Your task to perform on an android device: Open calendar and show me the third week of next month Image 0: 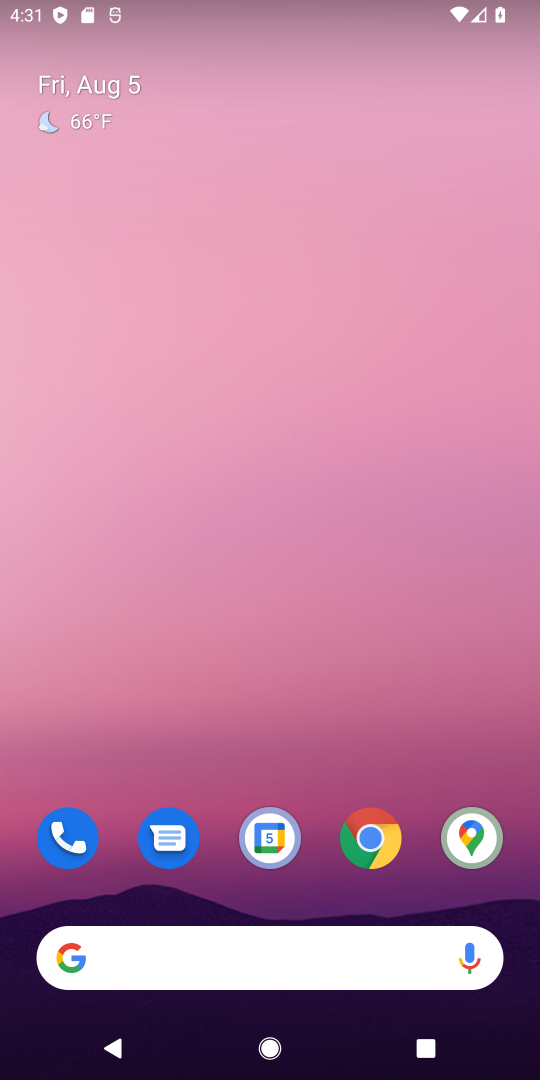
Step 0: drag from (234, 864) to (289, 298)
Your task to perform on an android device: Open calendar and show me the third week of next month Image 1: 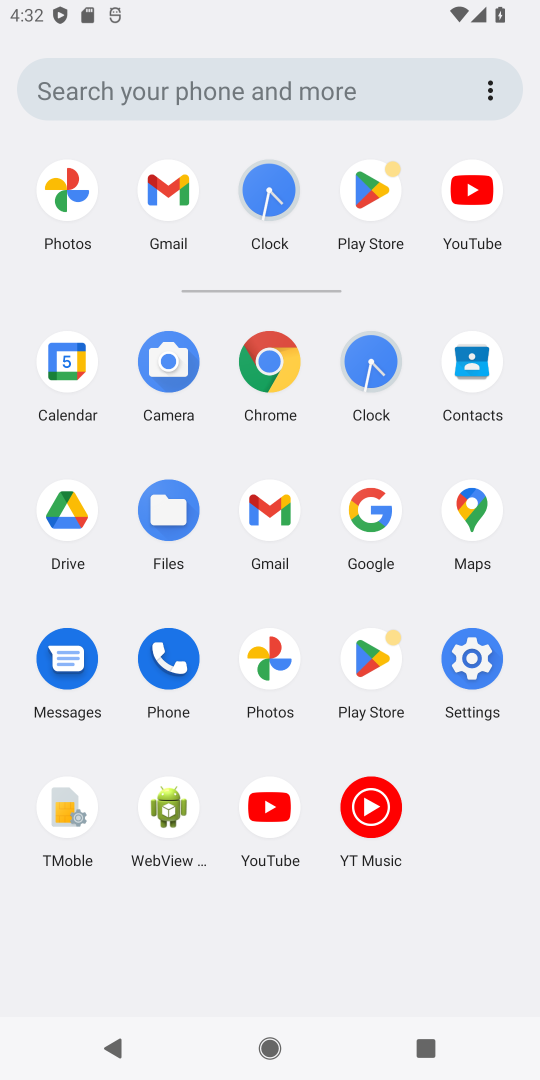
Step 1: click (66, 345)
Your task to perform on an android device: Open calendar and show me the third week of next month Image 2: 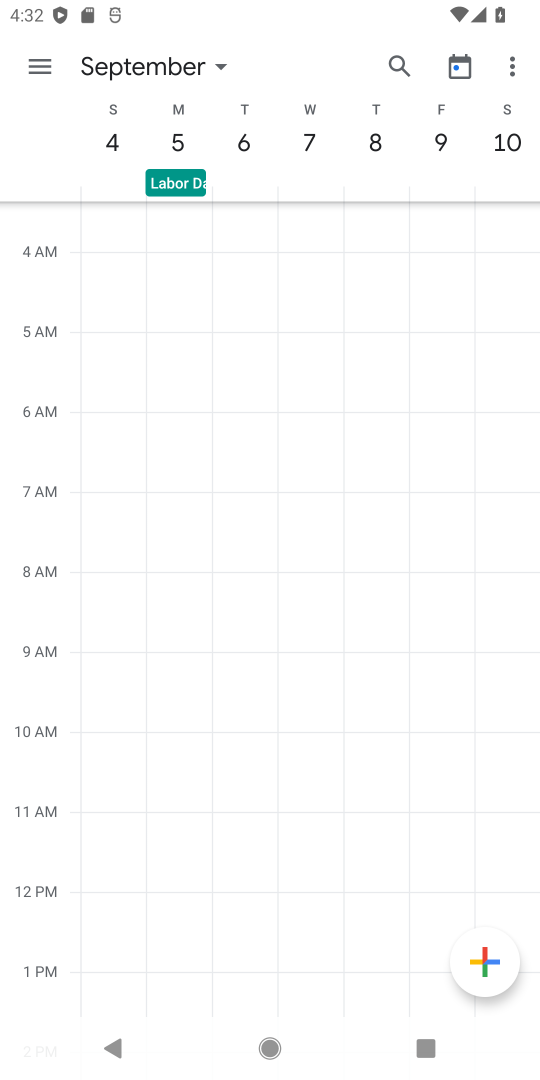
Step 2: task complete